Your task to perform on an android device: Open calendar and show me the fourth week of next month Image 0: 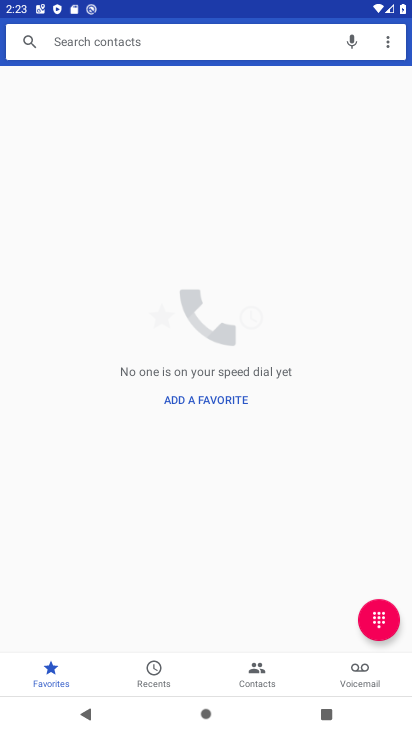
Step 0: press home button
Your task to perform on an android device: Open calendar and show me the fourth week of next month Image 1: 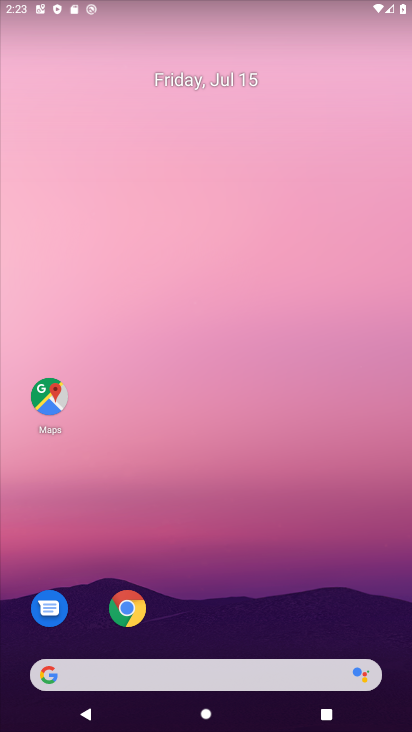
Step 1: drag from (295, 638) to (244, 99)
Your task to perform on an android device: Open calendar and show me the fourth week of next month Image 2: 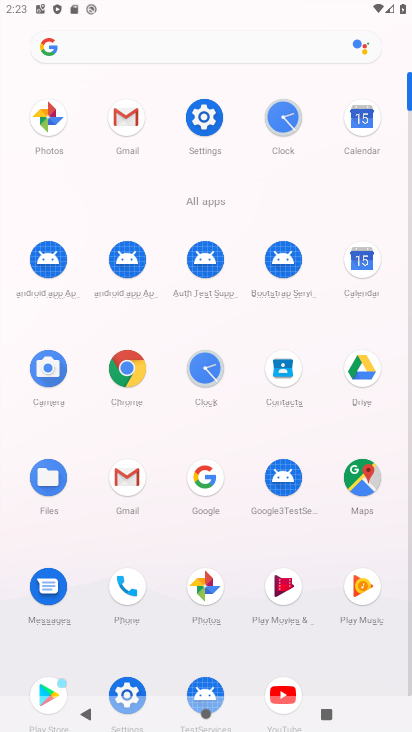
Step 2: click (365, 127)
Your task to perform on an android device: Open calendar and show me the fourth week of next month Image 3: 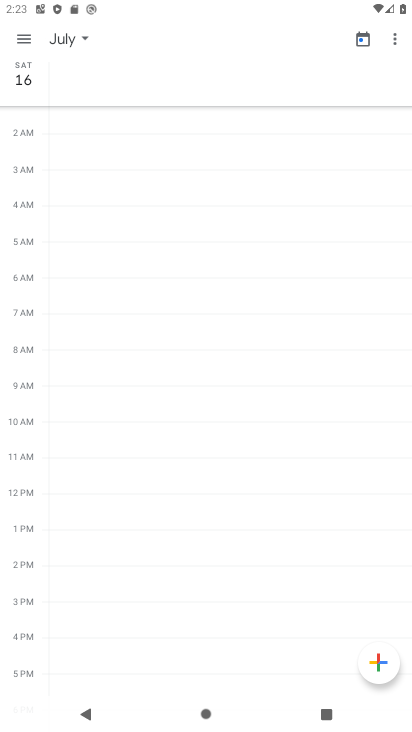
Step 3: click (20, 37)
Your task to perform on an android device: Open calendar and show me the fourth week of next month Image 4: 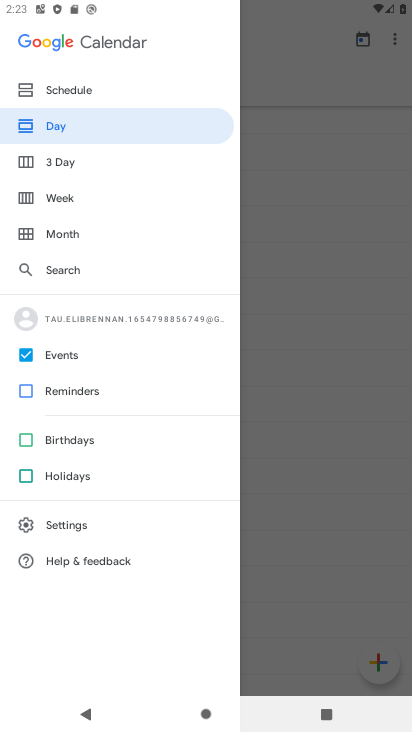
Step 4: click (61, 208)
Your task to perform on an android device: Open calendar and show me the fourth week of next month Image 5: 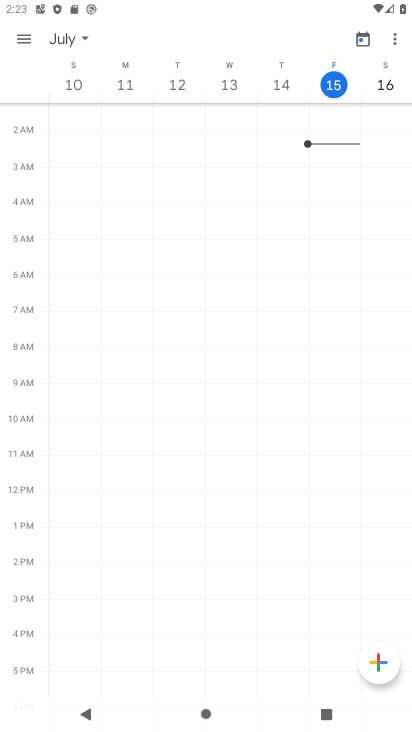
Step 5: click (82, 40)
Your task to perform on an android device: Open calendar and show me the fourth week of next month Image 6: 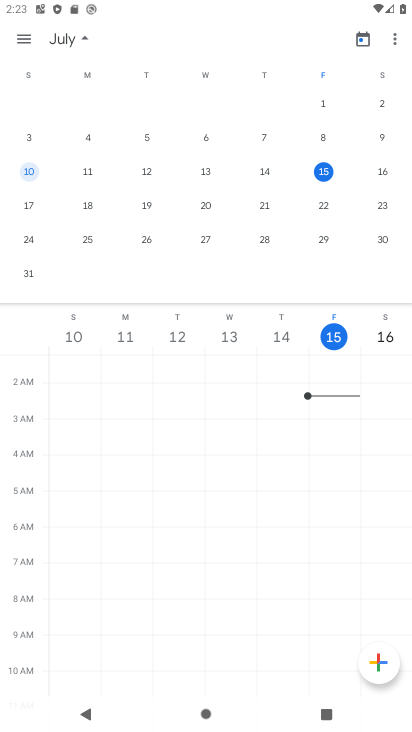
Step 6: drag from (390, 189) to (50, 183)
Your task to perform on an android device: Open calendar and show me the fourth week of next month Image 7: 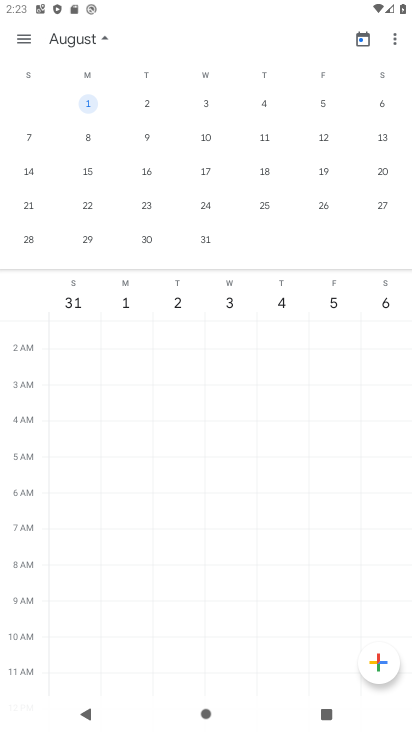
Step 7: click (201, 205)
Your task to perform on an android device: Open calendar and show me the fourth week of next month Image 8: 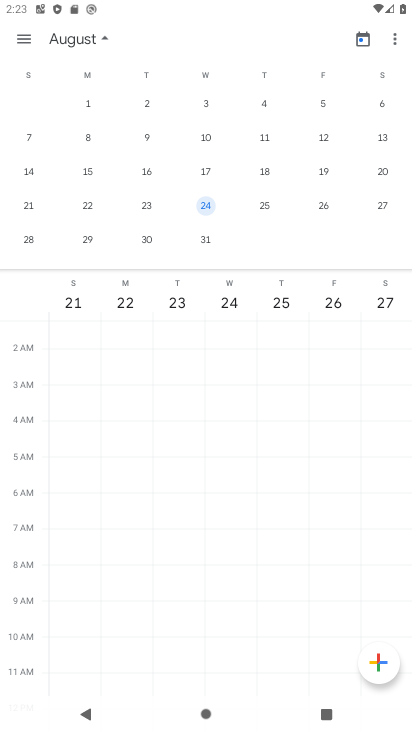
Step 8: task complete